Your task to perform on an android device: Search for pizza restaurants on Maps Image 0: 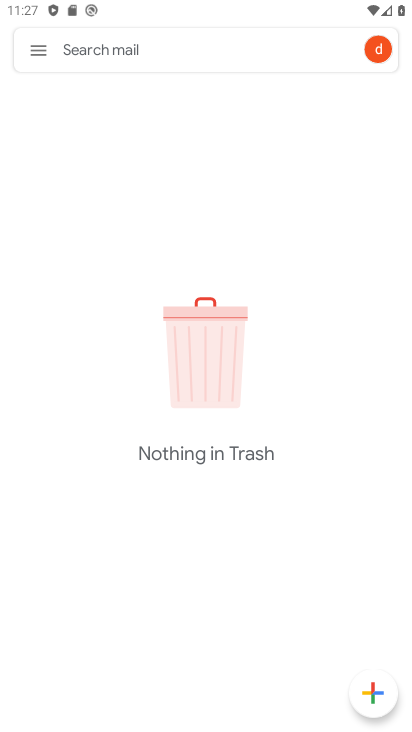
Step 0: press home button
Your task to perform on an android device: Search for pizza restaurants on Maps Image 1: 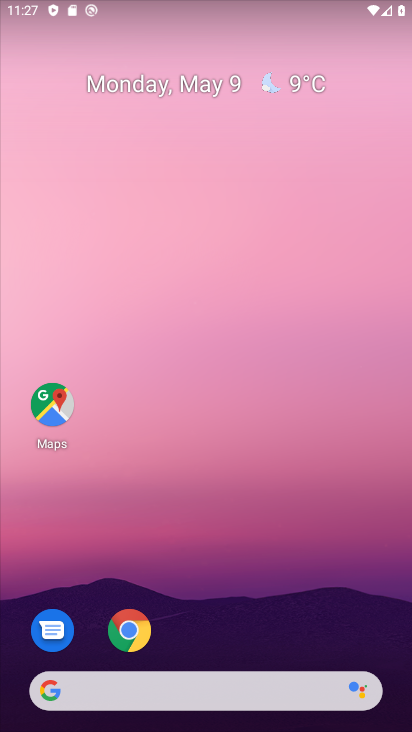
Step 1: click (50, 404)
Your task to perform on an android device: Search for pizza restaurants on Maps Image 2: 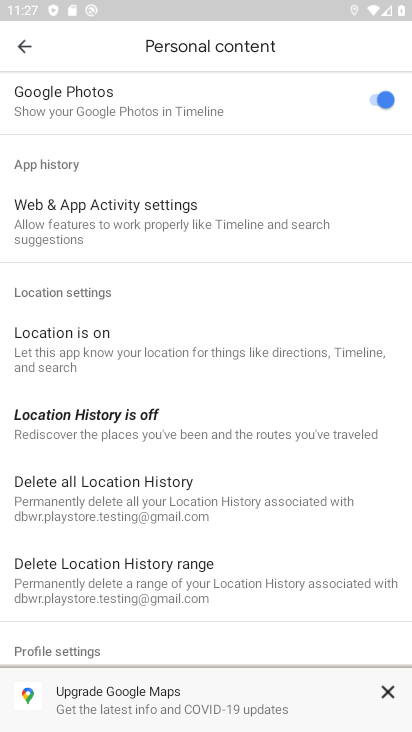
Step 2: click (19, 42)
Your task to perform on an android device: Search for pizza restaurants on Maps Image 3: 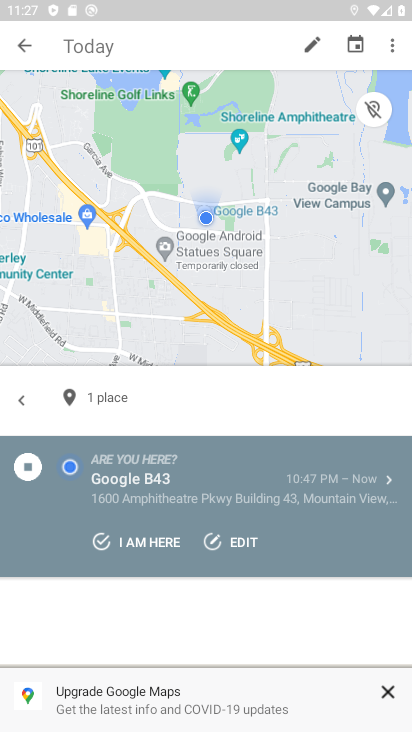
Step 3: click (17, 39)
Your task to perform on an android device: Search for pizza restaurants on Maps Image 4: 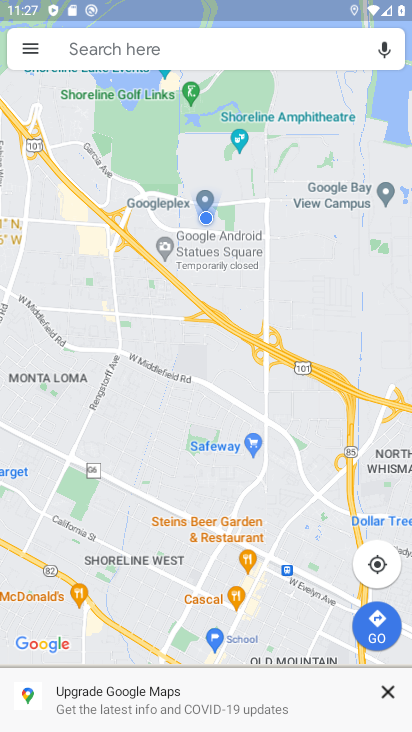
Step 4: click (174, 40)
Your task to perform on an android device: Search for pizza restaurants on Maps Image 5: 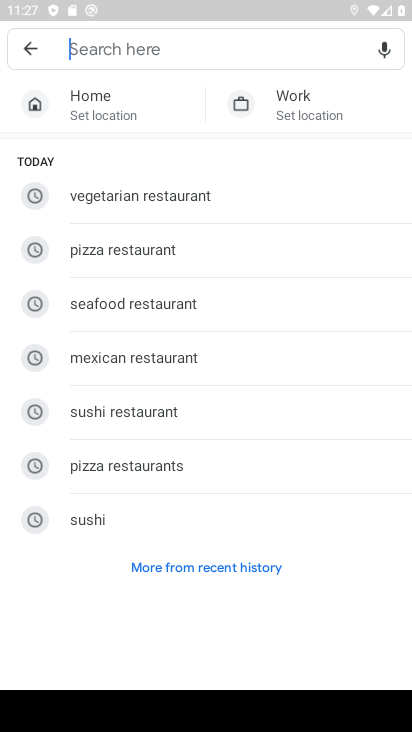
Step 5: click (134, 249)
Your task to perform on an android device: Search for pizza restaurants on Maps Image 6: 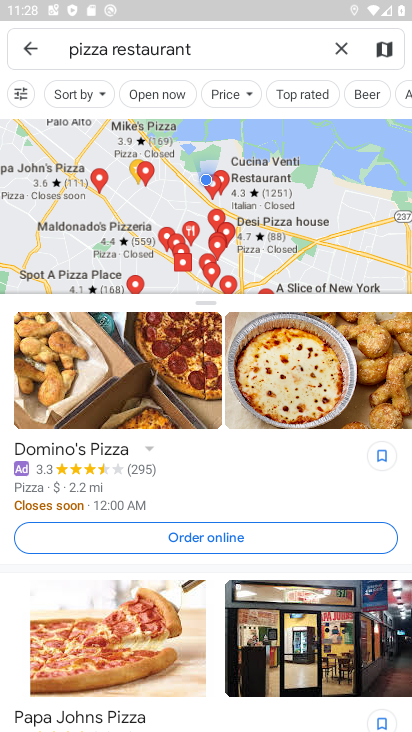
Step 6: task complete